Your task to perform on an android device: check battery use Image 0: 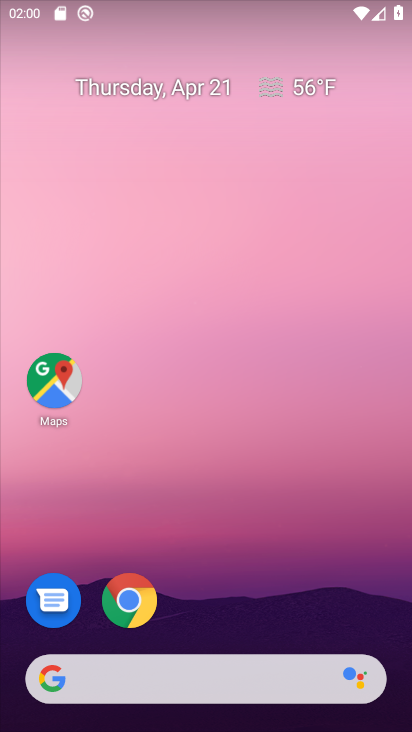
Step 0: drag from (314, 607) to (366, 99)
Your task to perform on an android device: check battery use Image 1: 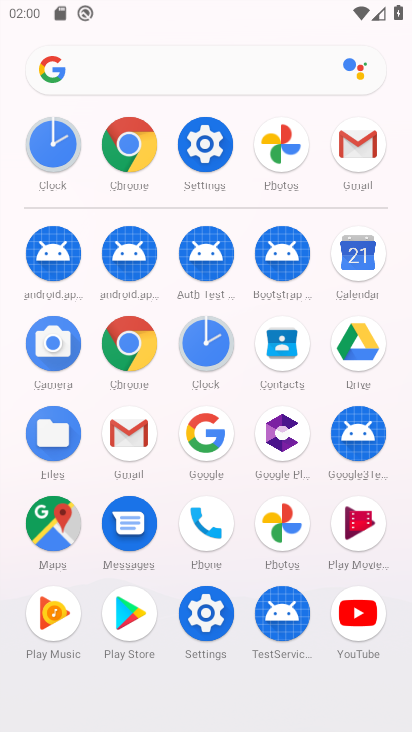
Step 1: click (216, 140)
Your task to perform on an android device: check battery use Image 2: 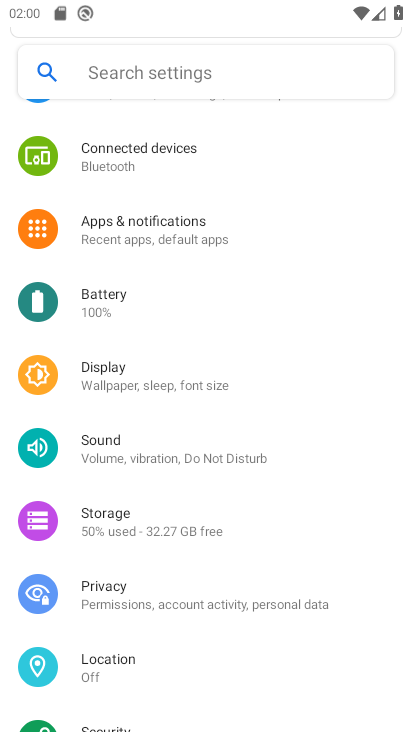
Step 2: click (208, 303)
Your task to perform on an android device: check battery use Image 3: 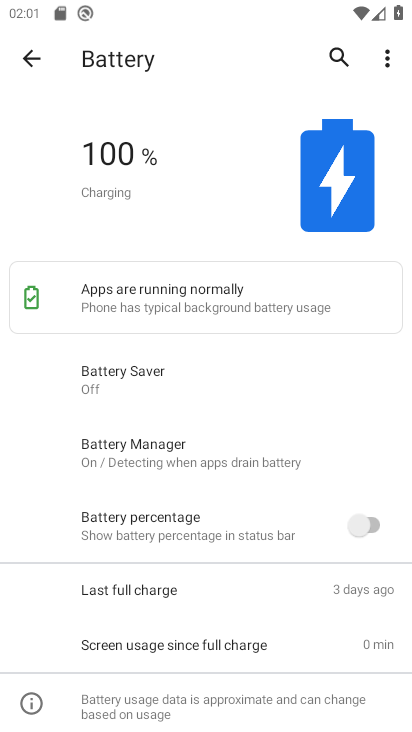
Step 3: task complete